Your task to perform on an android device: turn off wifi Image 0: 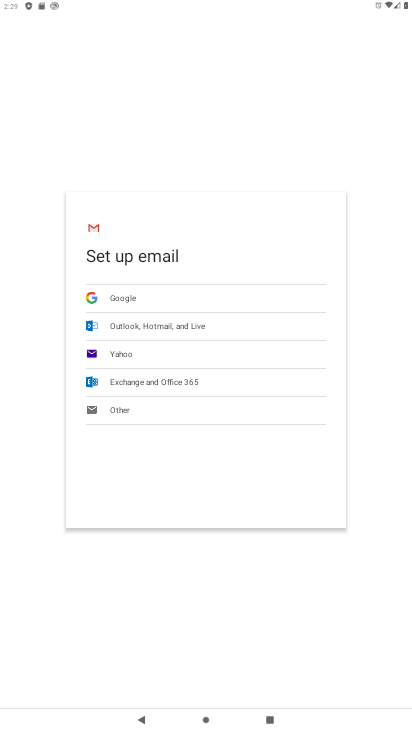
Step 0: drag from (231, 6) to (291, 398)
Your task to perform on an android device: turn off wifi Image 1: 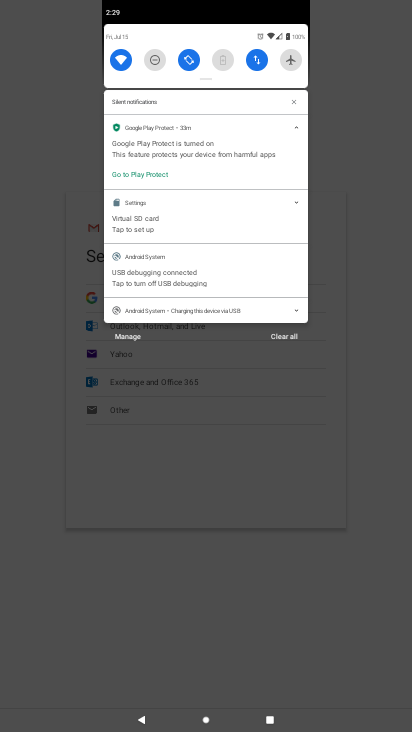
Step 1: click (116, 65)
Your task to perform on an android device: turn off wifi Image 2: 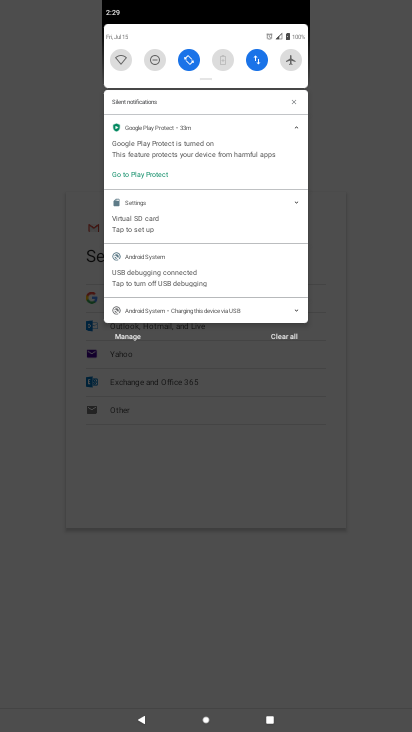
Step 2: task complete